Your task to perform on an android device: see sites visited before in the chrome app Image 0: 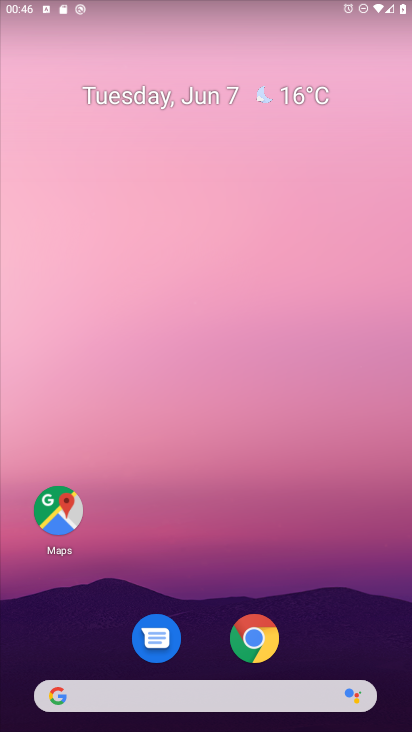
Step 0: drag from (227, 685) to (162, 43)
Your task to perform on an android device: see sites visited before in the chrome app Image 1: 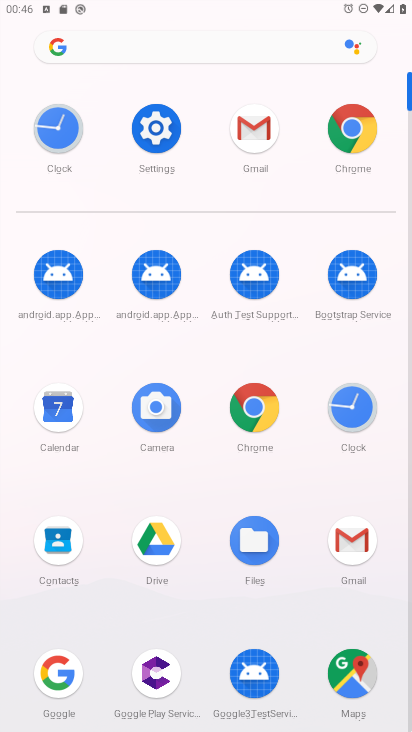
Step 1: click (269, 406)
Your task to perform on an android device: see sites visited before in the chrome app Image 2: 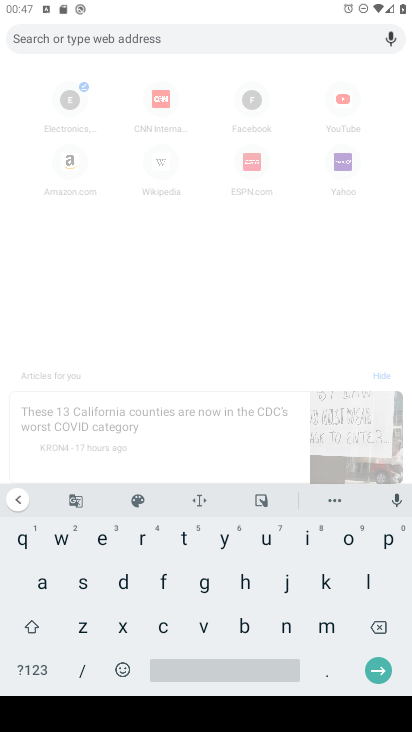
Step 2: press back button
Your task to perform on an android device: see sites visited before in the chrome app Image 3: 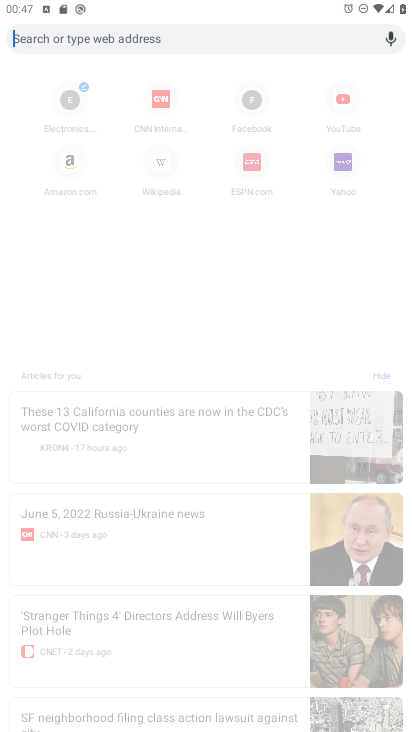
Step 3: press back button
Your task to perform on an android device: see sites visited before in the chrome app Image 4: 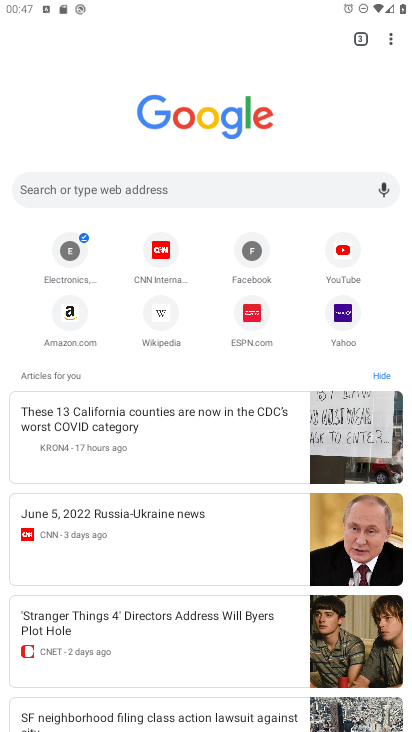
Step 4: click (390, 41)
Your task to perform on an android device: see sites visited before in the chrome app Image 5: 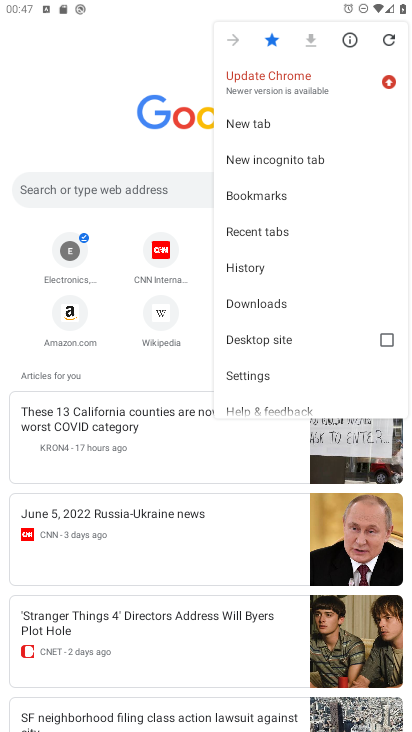
Step 5: click (252, 381)
Your task to perform on an android device: see sites visited before in the chrome app Image 6: 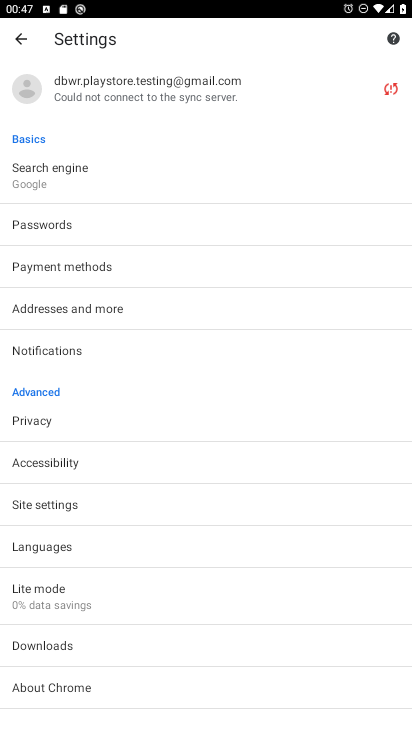
Step 6: click (65, 507)
Your task to perform on an android device: see sites visited before in the chrome app Image 7: 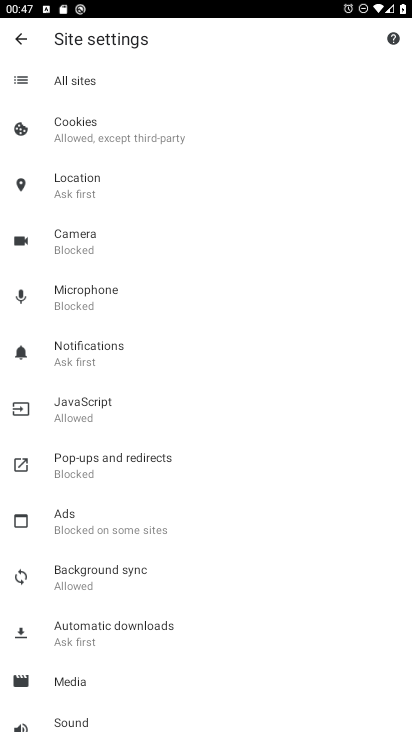
Step 7: click (88, 75)
Your task to perform on an android device: see sites visited before in the chrome app Image 8: 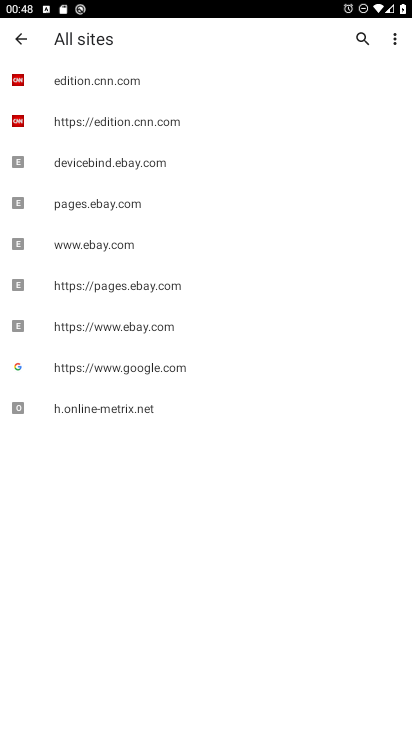
Step 8: task complete